Your task to perform on an android device: check data usage Image 0: 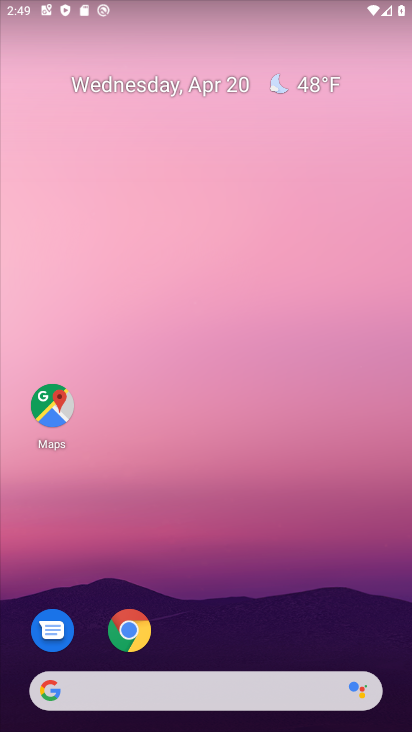
Step 0: drag from (220, 729) to (242, 17)
Your task to perform on an android device: check data usage Image 1: 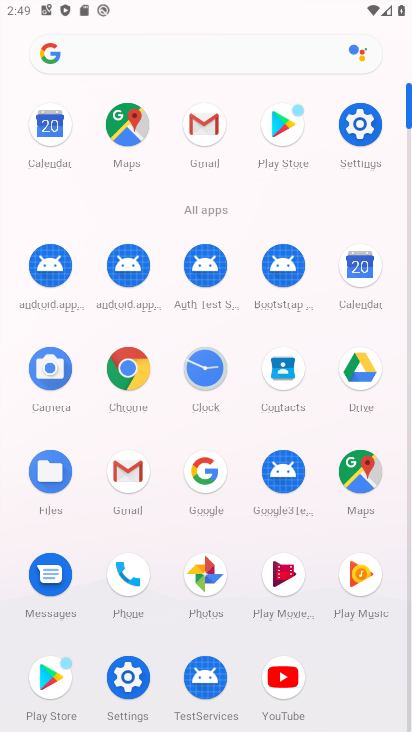
Step 1: click (352, 138)
Your task to perform on an android device: check data usage Image 2: 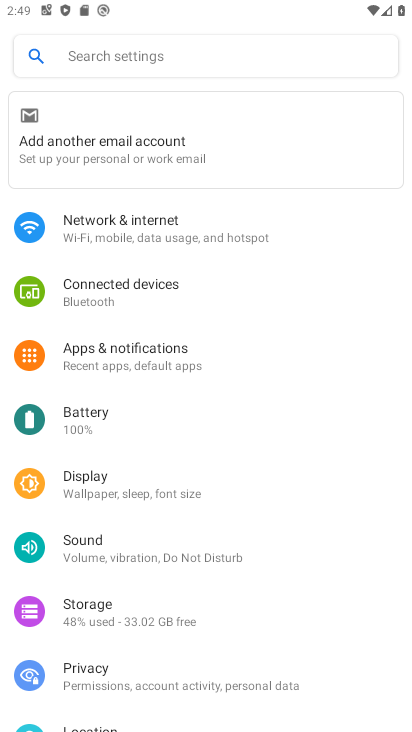
Step 2: click (206, 235)
Your task to perform on an android device: check data usage Image 3: 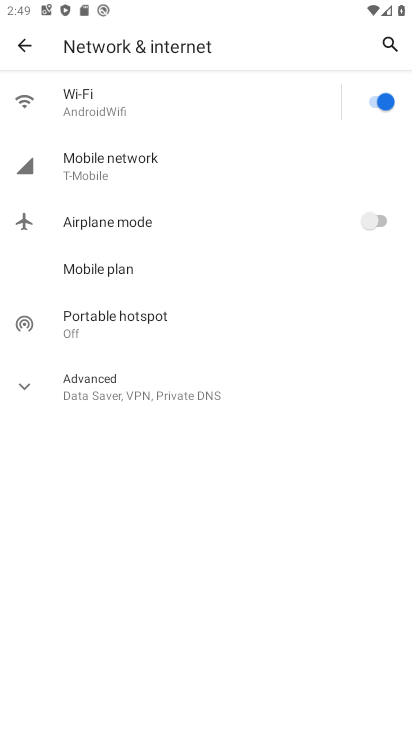
Step 3: click (219, 168)
Your task to perform on an android device: check data usage Image 4: 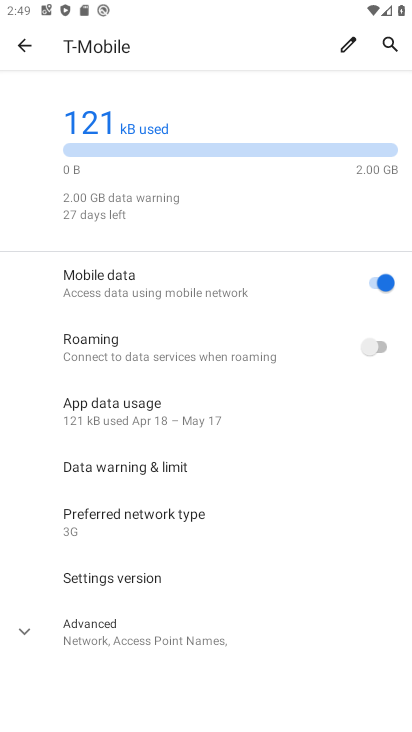
Step 4: task complete